Your task to perform on an android device: Go to ESPN.com Image 0: 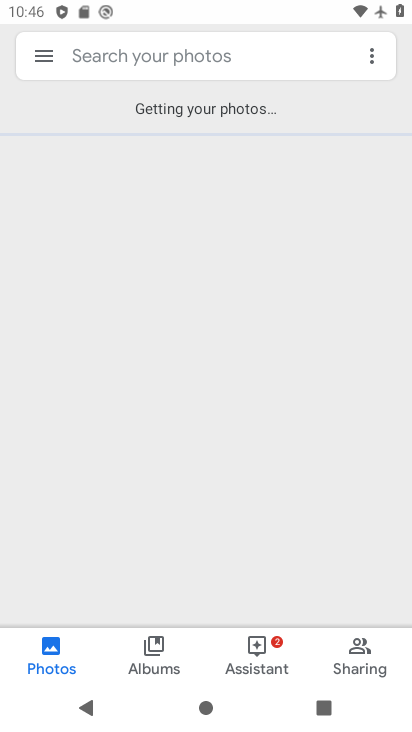
Step 0: press home button
Your task to perform on an android device: Go to ESPN.com Image 1: 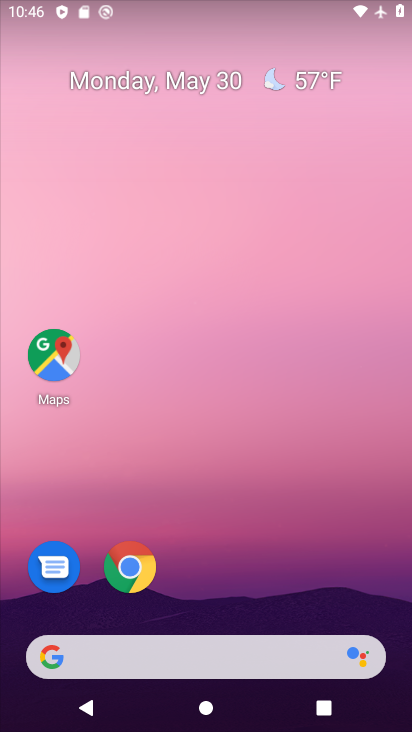
Step 1: click (134, 557)
Your task to perform on an android device: Go to ESPN.com Image 2: 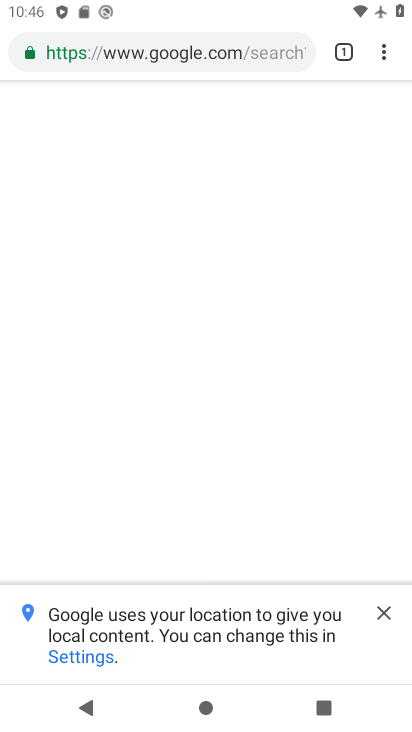
Step 2: click (339, 57)
Your task to perform on an android device: Go to ESPN.com Image 3: 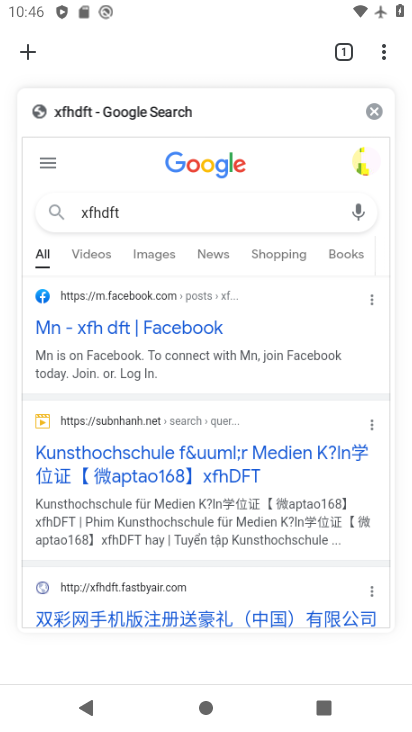
Step 3: click (177, 441)
Your task to perform on an android device: Go to ESPN.com Image 4: 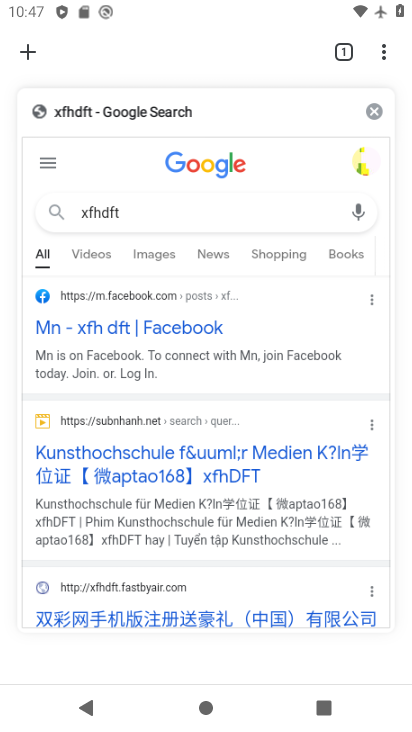
Step 4: click (36, 57)
Your task to perform on an android device: Go to ESPN.com Image 5: 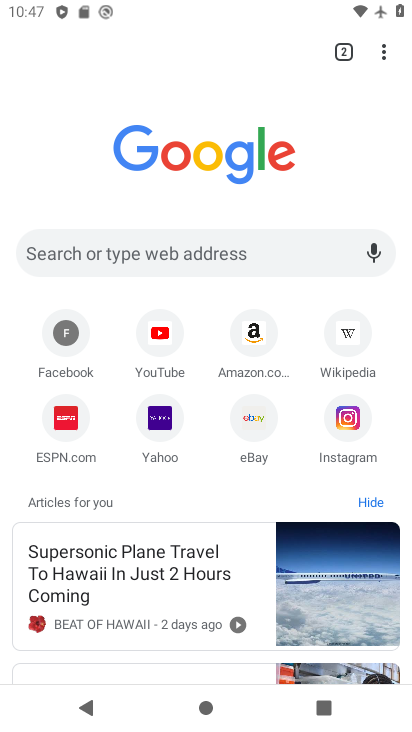
Step 5: click (168, 251)
Your task to perform on an android device: Go to ESPN.com Image 6: 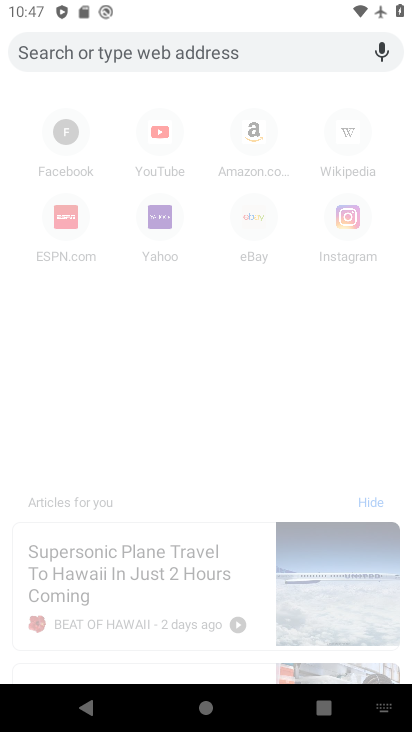
Step 6: click (69, 235)
Your task to perform on an android device: Go to ESPN.com Image 7: 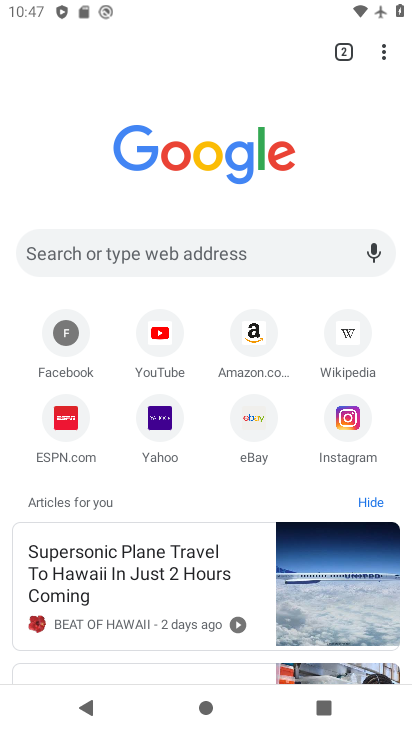
Step 7: click (67, 428)
Your task to perform on an android device: Go to ESPN.com Image 8: 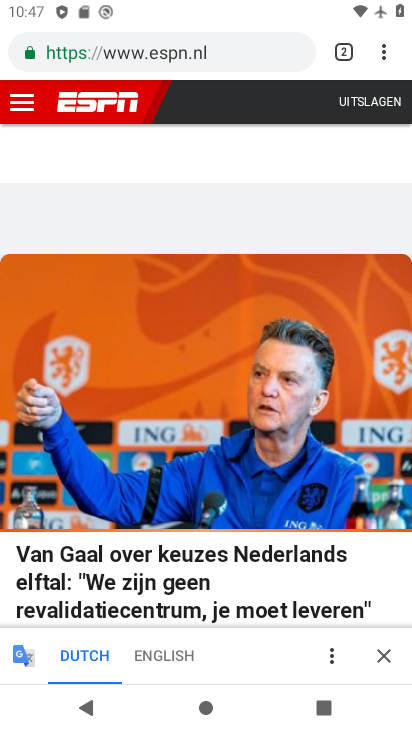
Step 8: task complete